Your task to perform on an android device: set an alarm Image 0: 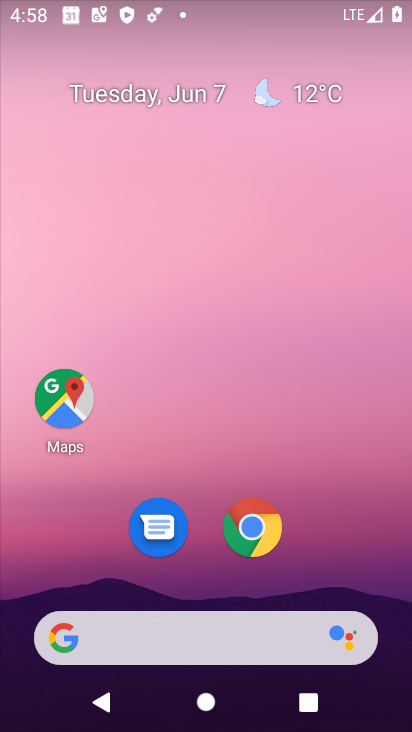
Step 0: drag from (333, 544) to (226, 117)
Your task to perform on an android device: set an alarm Image 1: 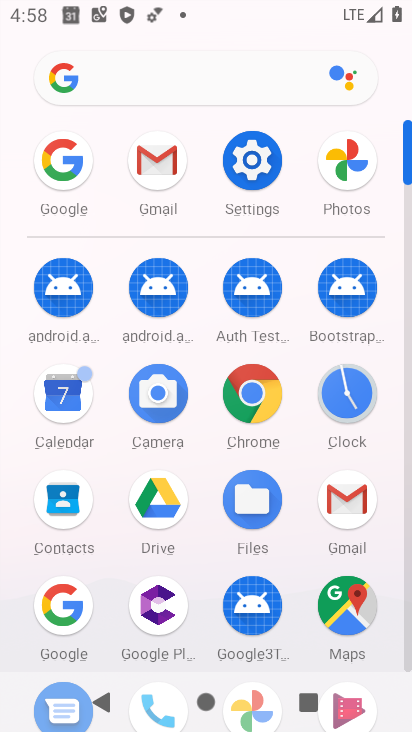
Step 1: click (346, 391)
Your task to perform on an android device: set an alarm Image 2: 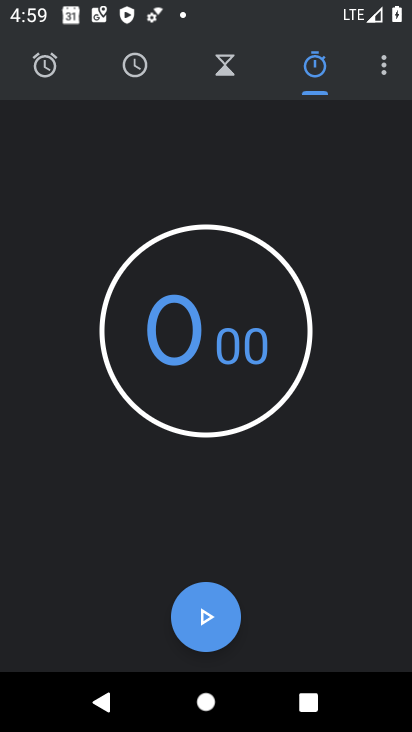
Step 2: click (40, 66)
Your task to perform on an android device: set an alarm Image 3: 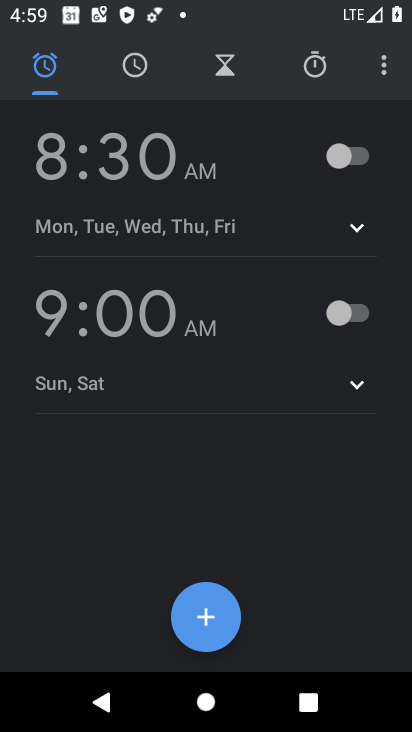
Step 3: click (215, 627)
Your task to perform on an android device: set an alarm Image 4: 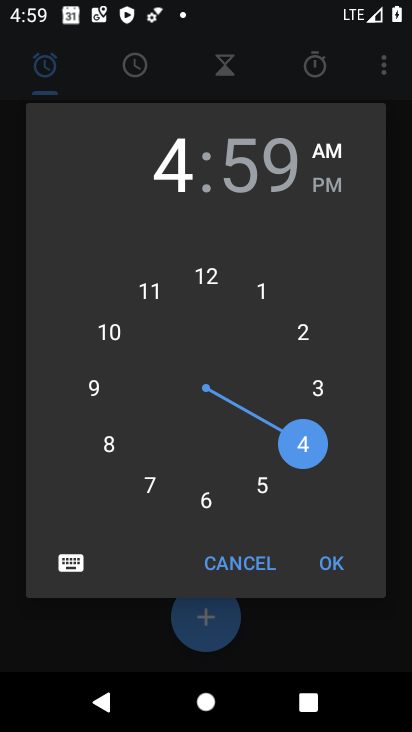
Step 4: click (201, 274)
Your task to perform on an android device: set an alarm Image 5: 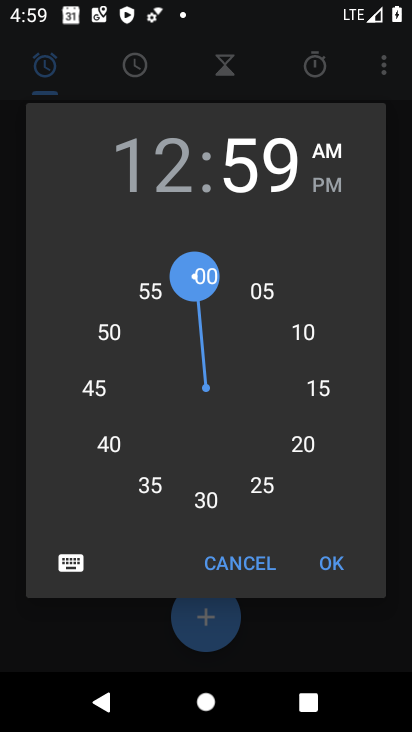
Step 5: click (201, 274)
Your task to perform on an android device: set an alarm Image 6: 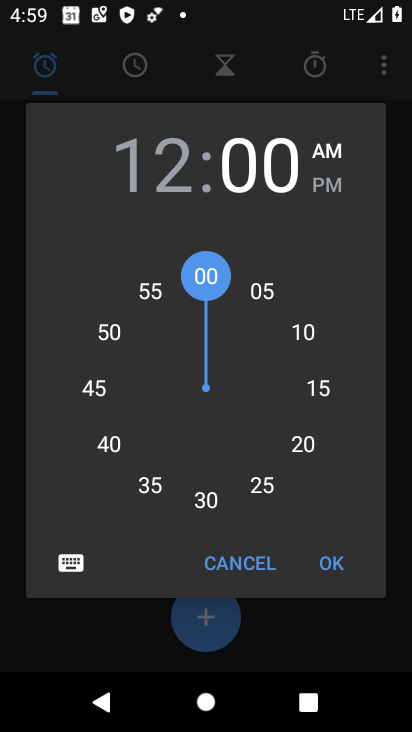
Step 6: click (346, 183)
Your task to perform on an android device: set an alarm Image 7: 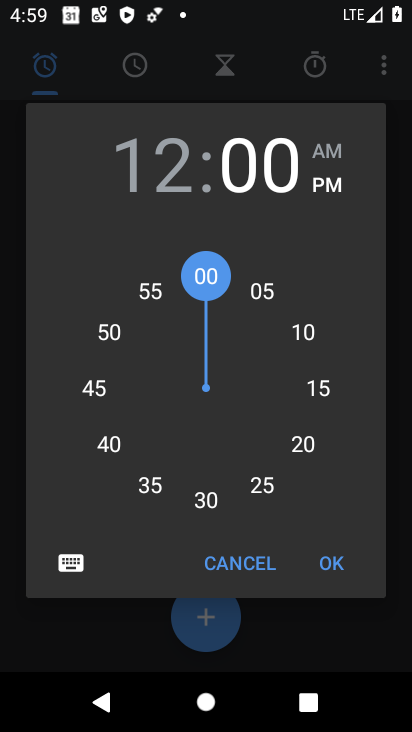
Step 7: click (331, 557)
Your task to perform on an android device: set an alarm Image 8: 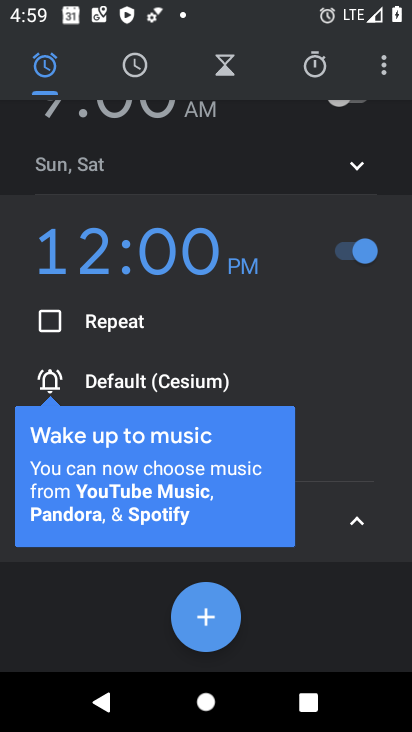
Step 8: click (359, 520)
Your task to perform on an android device: set an alarm Image 9: 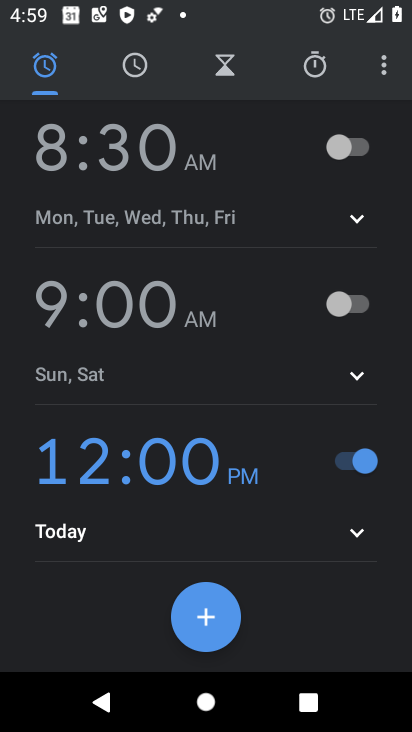
Step 9: task complete